Your task to perform on an android device: empty trash in the gmail app Image 0: 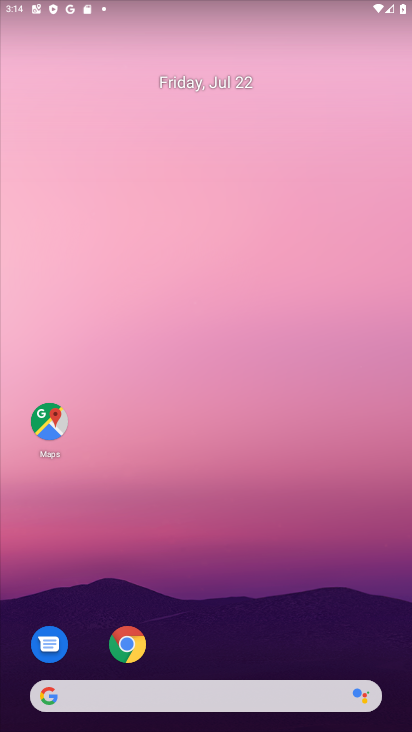
Step 0: drag from (269, 604) to (266, 366)
Your task to perform on an android device: empty trash in the gmail app Image 1: 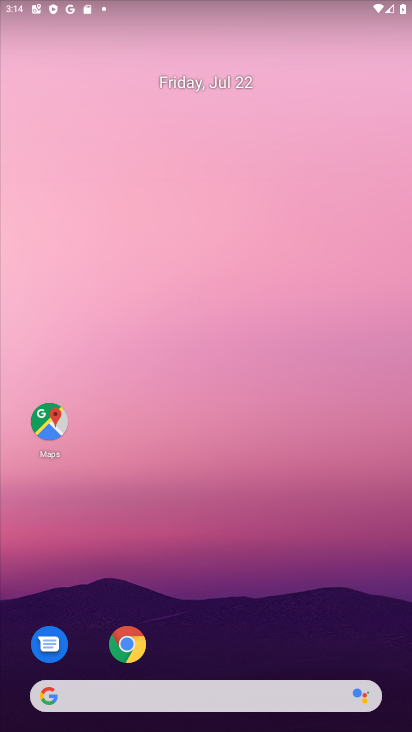
Step 1: drag from (261, 495) to (277, 299)
Your task to perform on an android device: empty trash in the gmail app Image 2: 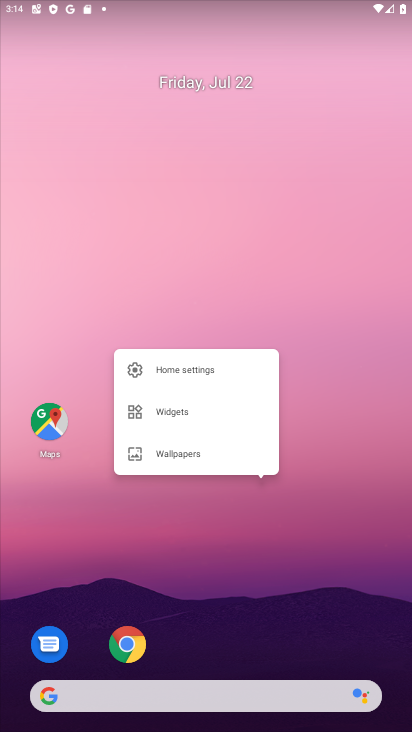
Step 2: click (333, 543)
Your task to perform on an android device: empty trash in the gmail app Image 3: 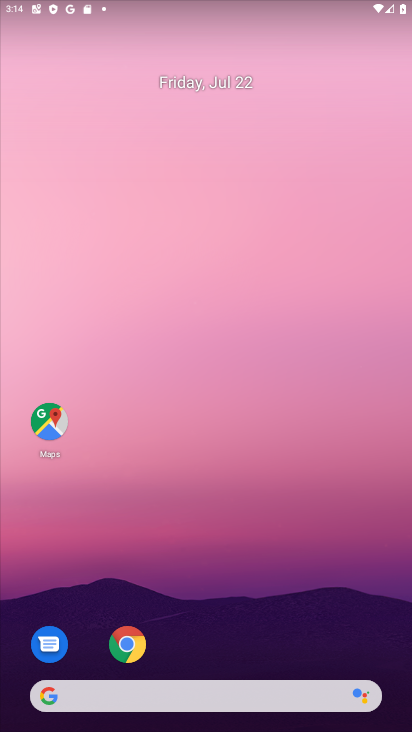
Step 3: drag from (339, 506) to (340, 263)
Your task to perform on an android device: empty trash in the gmail app Image 4: 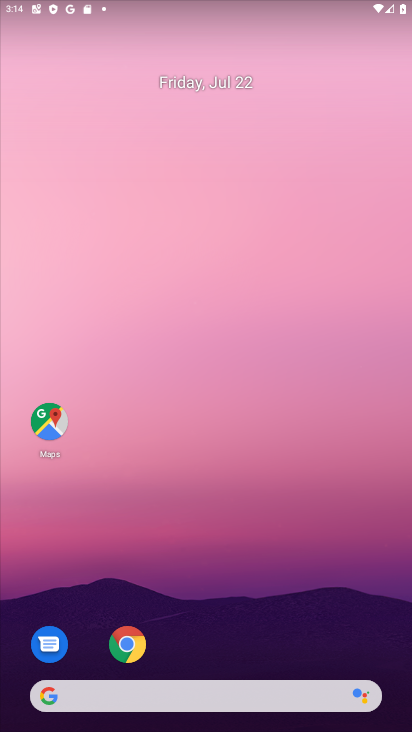
Step 4: drag from (341, 505) to (360, 262)
Your task to perform on an android device: empty trash in the gmail app Image 5: 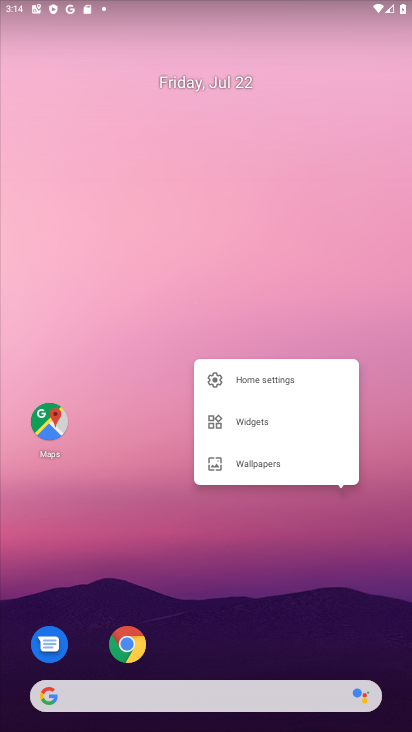
Step 5: click (392, 461)
Your task to perform on an android device: empty trash in the gmail app Image 6: 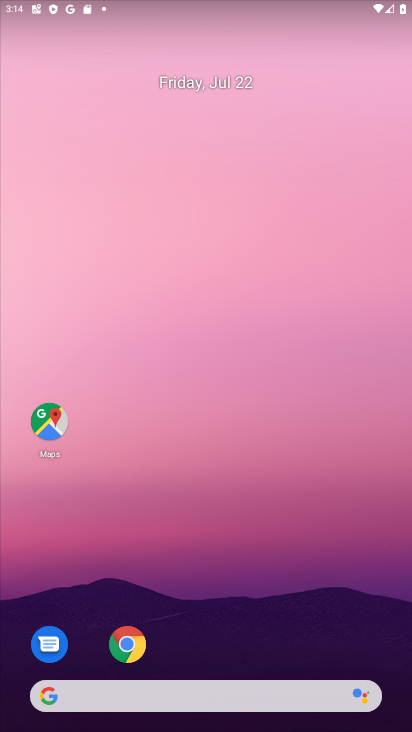
Step 6: drag from (335, 524) to (319, 148)
Your task to perform on an android device: empty trash in the gmail app Image 7: 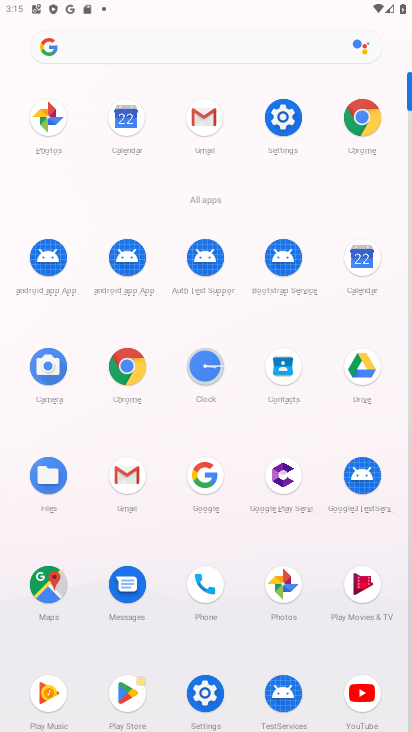
Step 7: click (124, 485)
Your task to perform on an android device: empty trash in the gmail app Image 8: 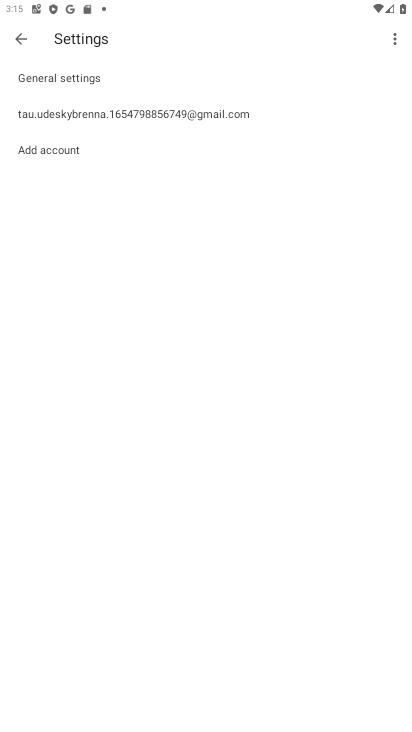
Step 8: click (15, 38)
Your task to perform on an android device: empty trash in the gmail app Image 9: 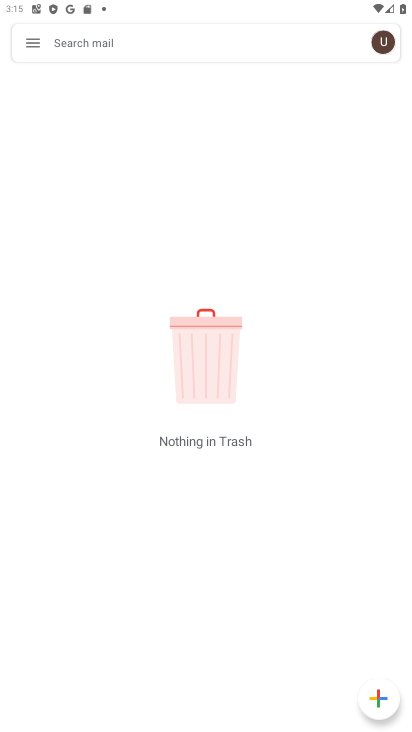
Step 9: click (31, 44)
Your task to perform on an android device: empty trash in the gmail app Image 10: 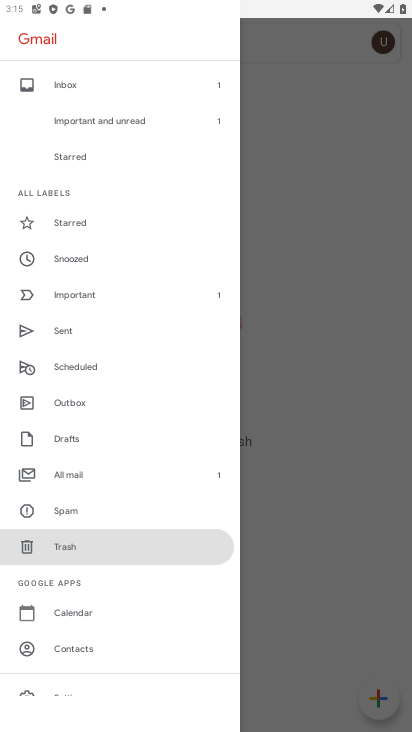
Step 10: click (58, 548)
Your task to perform on an android device: empty trash in the gmail app Image 11: 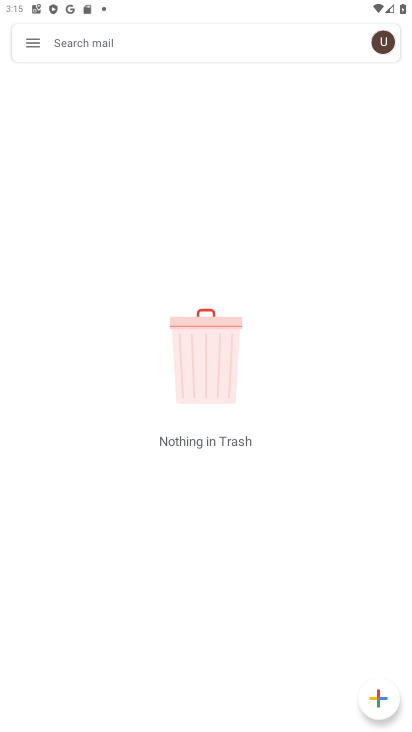
Step 11: task complete